Your task to perform on an android device: turn notification dots off Image 0: 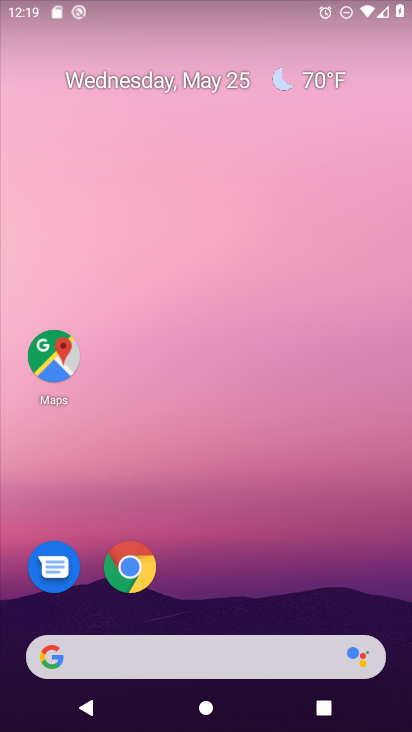
Step 0: drag from (404, 691) to (379, 271)
Your task to perform on an android device: turn notification dots off Image 1: 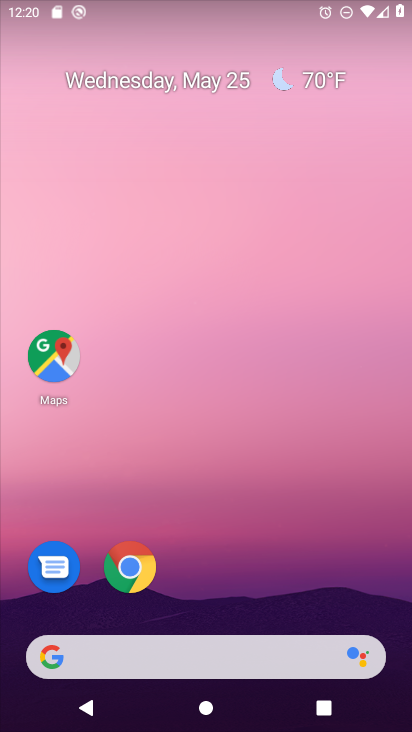
Step 1: drag from (390, 708) to (362, 244)
Your task to perform on an android device: turn notification dots off Image 2: 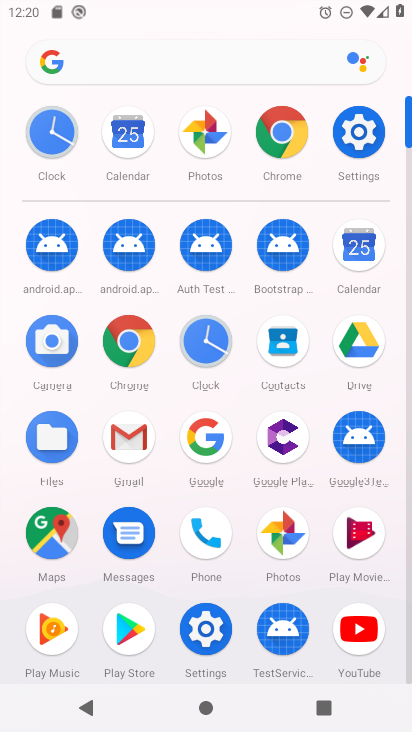
Step 2: click (370, 126)
Your task to perform on an android device: turn notification dots off Image 3: 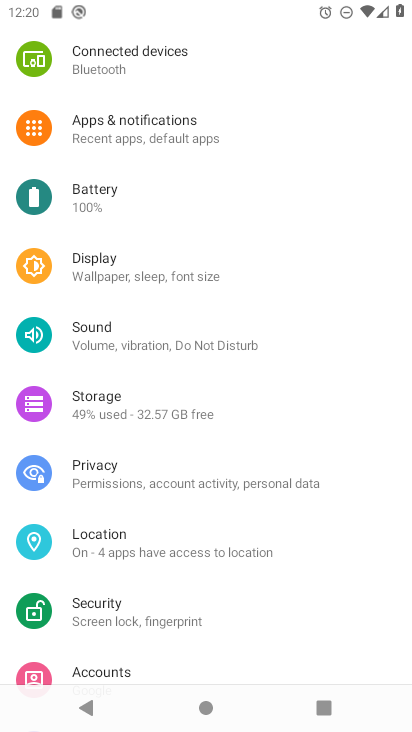
Step 3: click (131, 134)
Your task to perform on an android device: turn notification dots off Image 4: 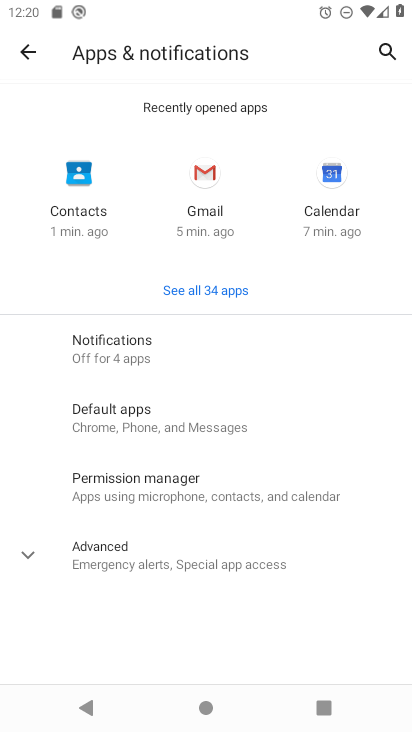
Step 4: click (118, 343)
Your task to perform on an android device: turn notification dots off Image 5: 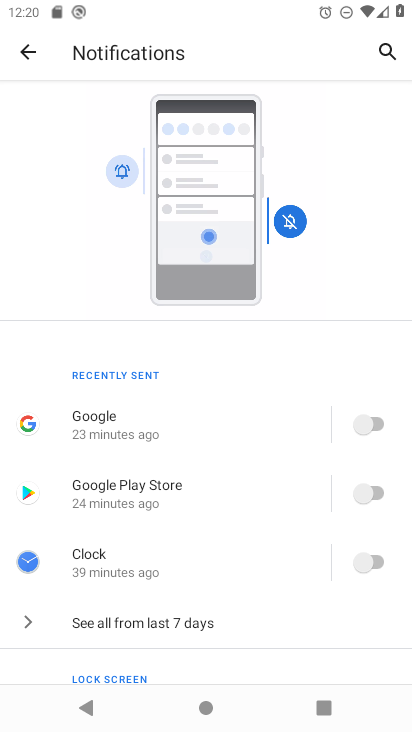
Step 5: drag from (267, 670) to (251, 37)
Your task to perform on an android device: turn notification dots off Image 6: 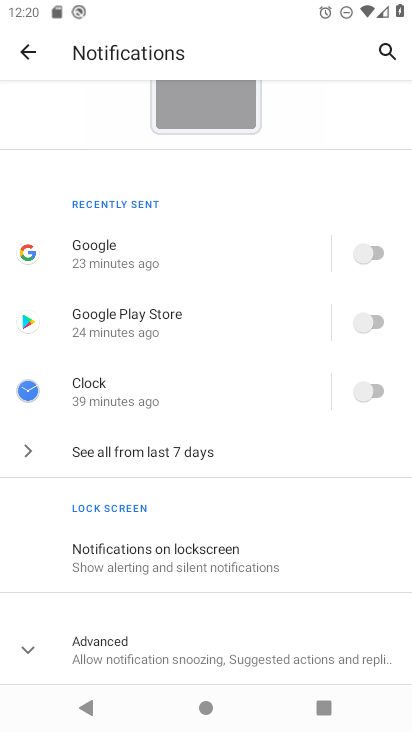
Step 6: click (28, 647)
Your task to perform on an android device: turn notification dots off Image 7: 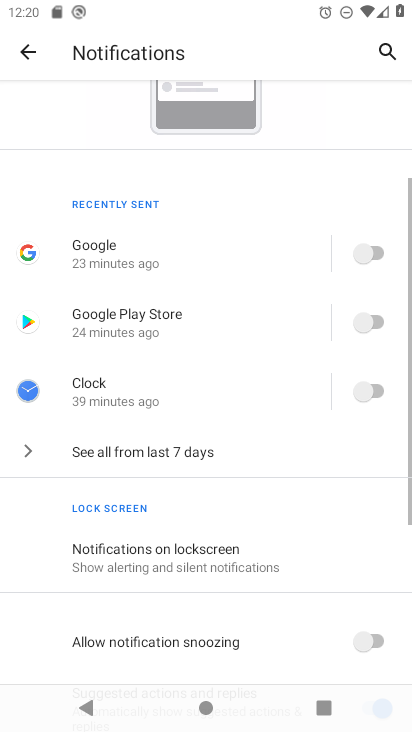
Step 7: task complete